Your task to perform on an android device: Go to internet settings Image 0: 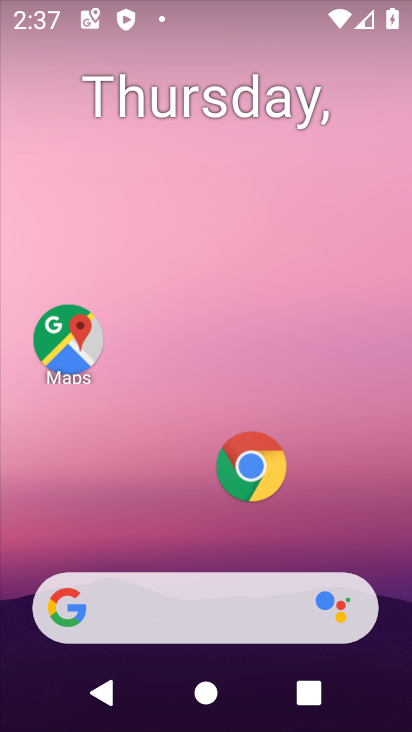
Step 0: drag from (204, 542) to (205, 160)
Your task to perform on an android device: Go to internet settings Image 1: 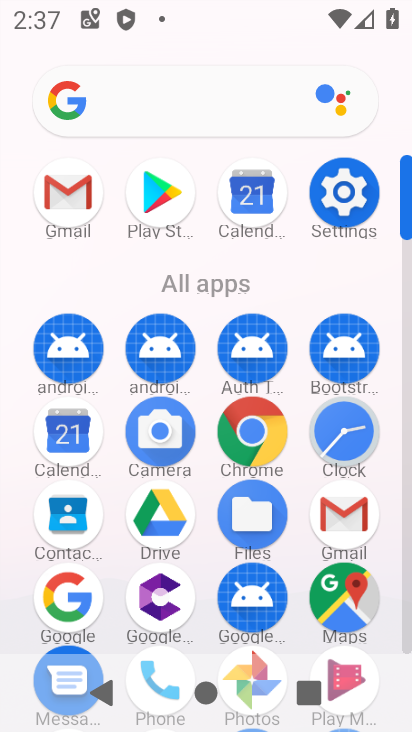
Step 1: click (326, 179)
Your task to perform on an android device: Go to internet settings Image 2: 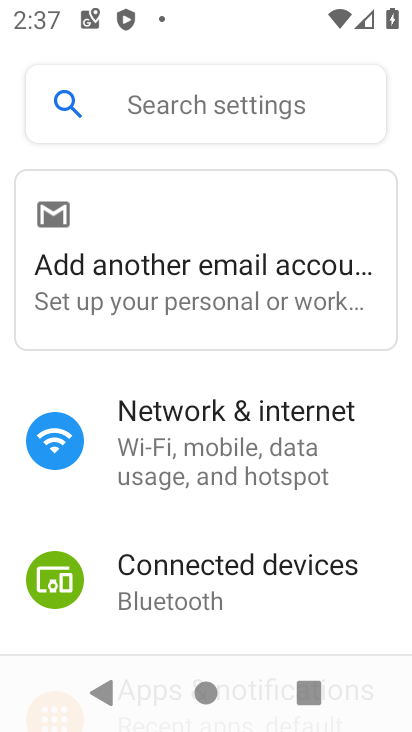
Step 2: click (173, 407)
Your task to perform on an android device: Go to internet settings Image 3: 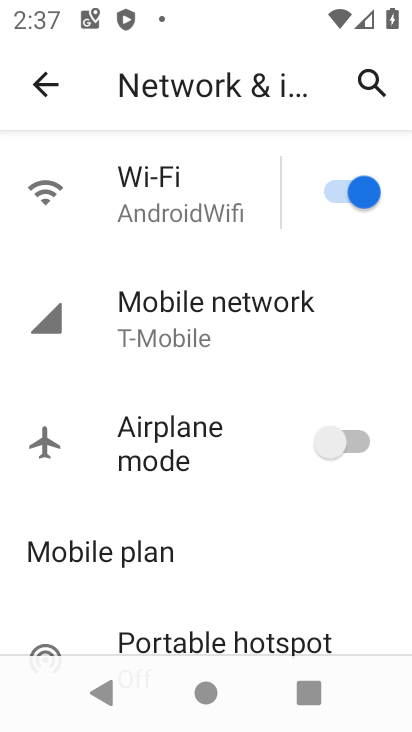
Step 3: task complete